Your task to perform on an android device: Google the capital of Venezuela Image 0: 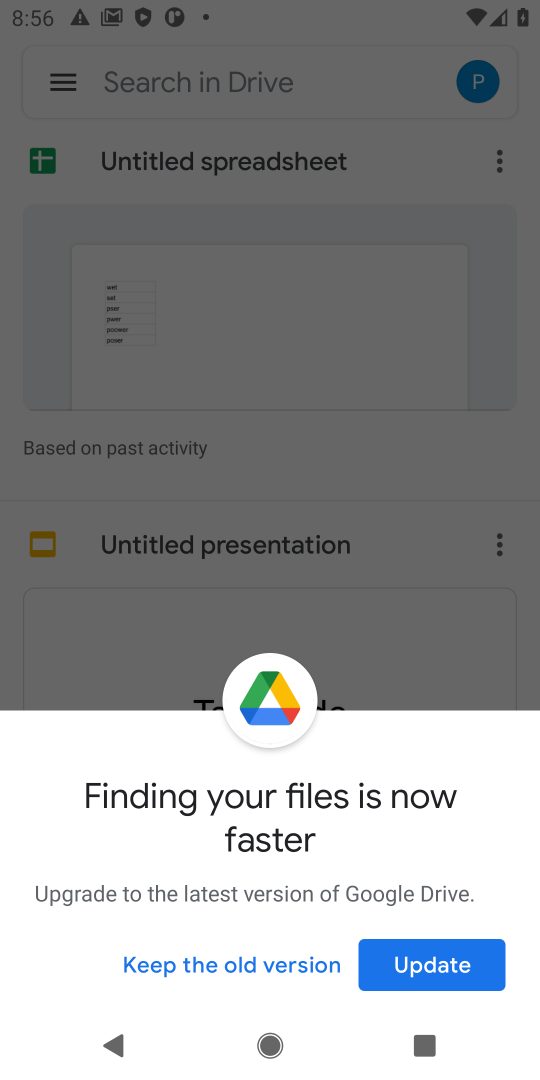
Step 0: press home button
Your task to perform on an android device: Google the capital of Venezuela Image 1: 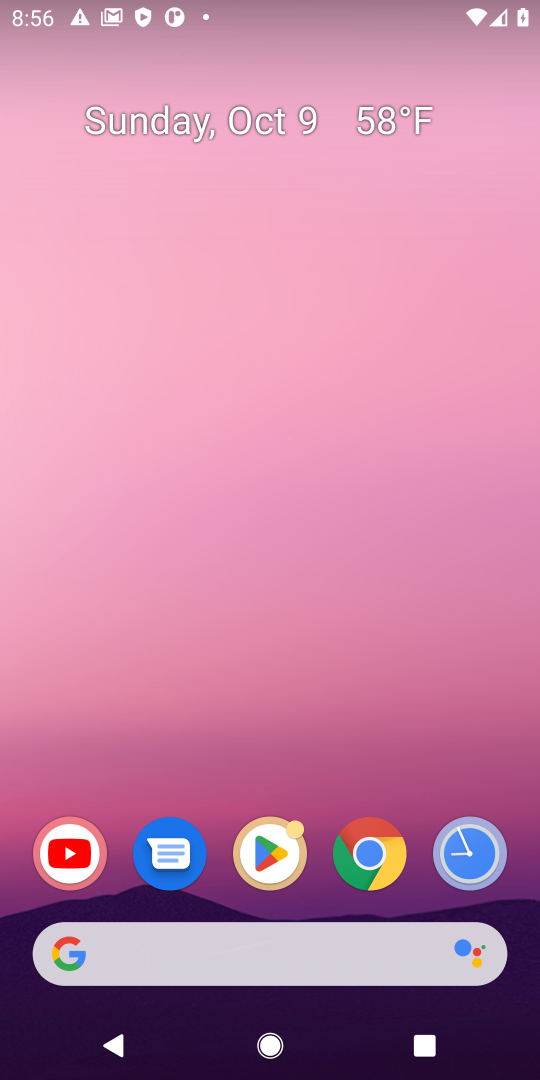
Step 1: click (373, 854)
Your task to perform on an android device: Google the capital of Venezuela Image 2: 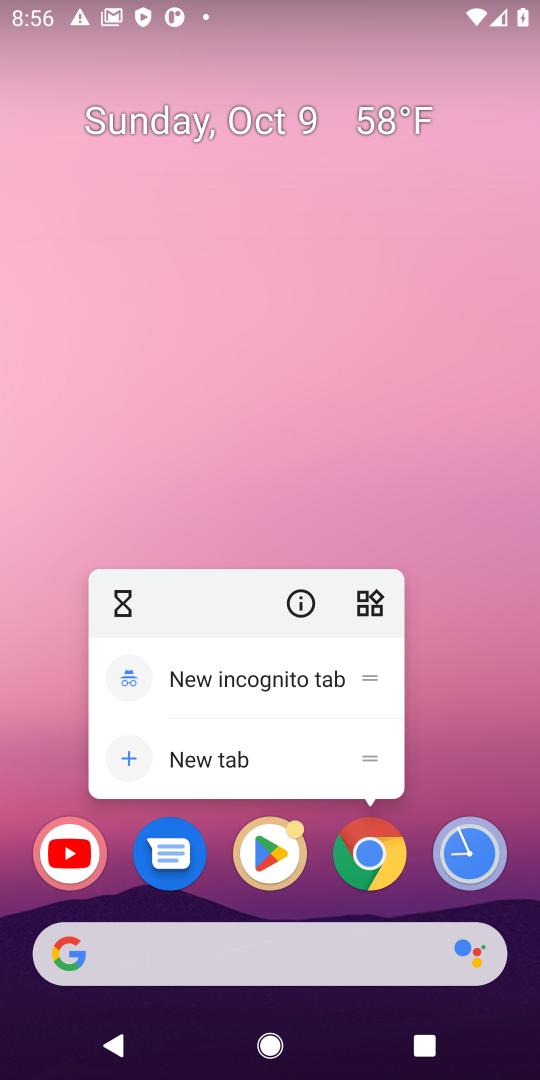
Step 2: click (380, 858)
Your task to perform on an android device: Google the capital of Venezuela Image 3: 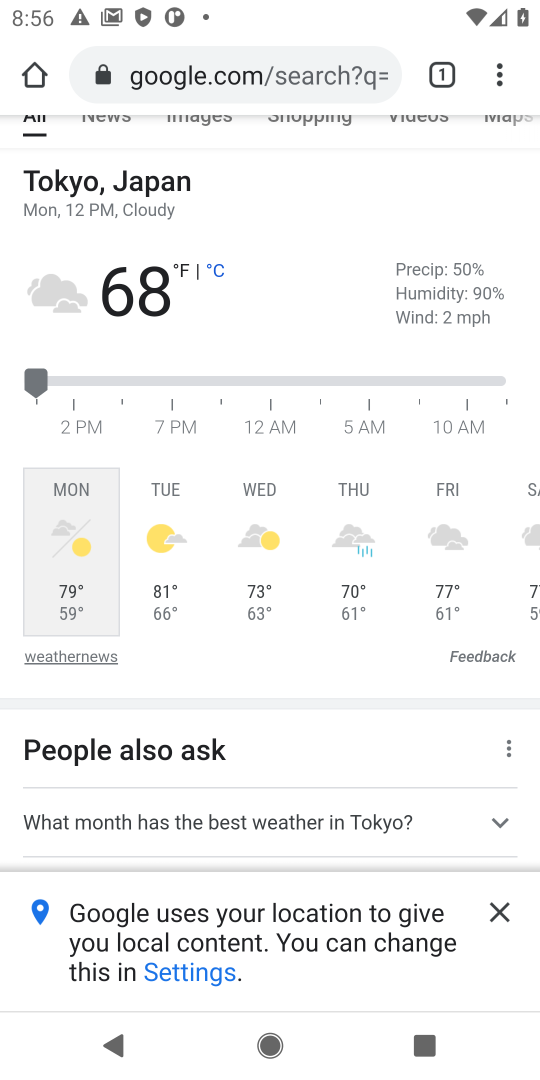
Step 3: click (309, 81)
Your task to perform on an android device: Google the capital of Venezuela Image 4: 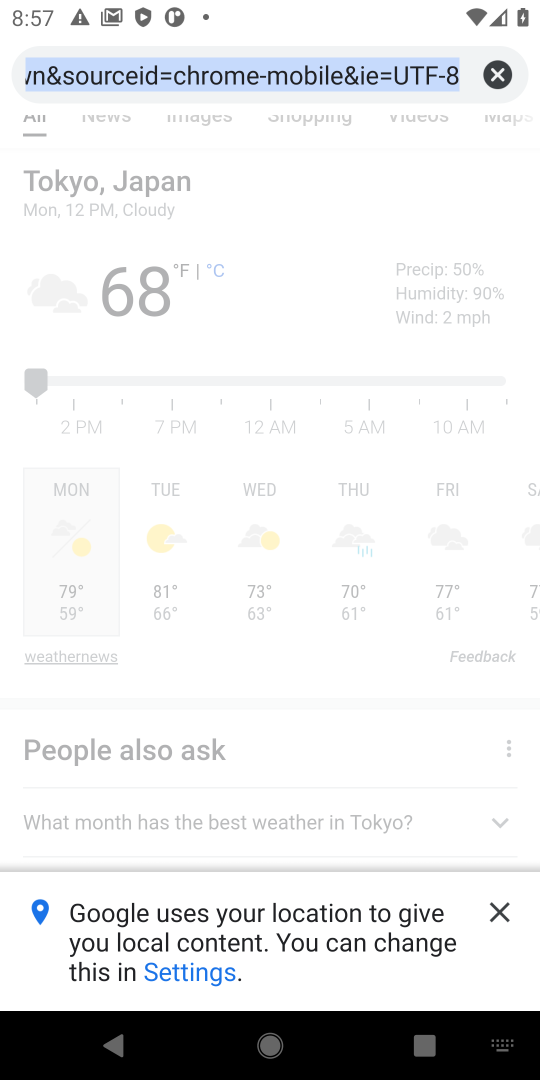
Step 4: type "capital of venezuela"
Your task to perform on an android device: Google the capital of Venezuela Image 5: 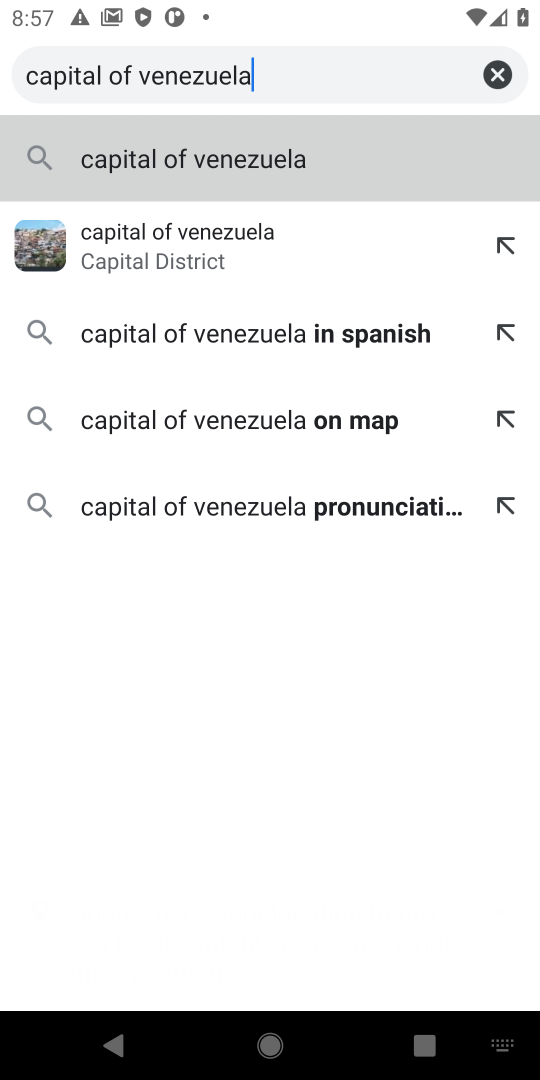
Step 5: click (301, 172)
Your task to perform on an android device: Google the capital of Venezuela Image 6: 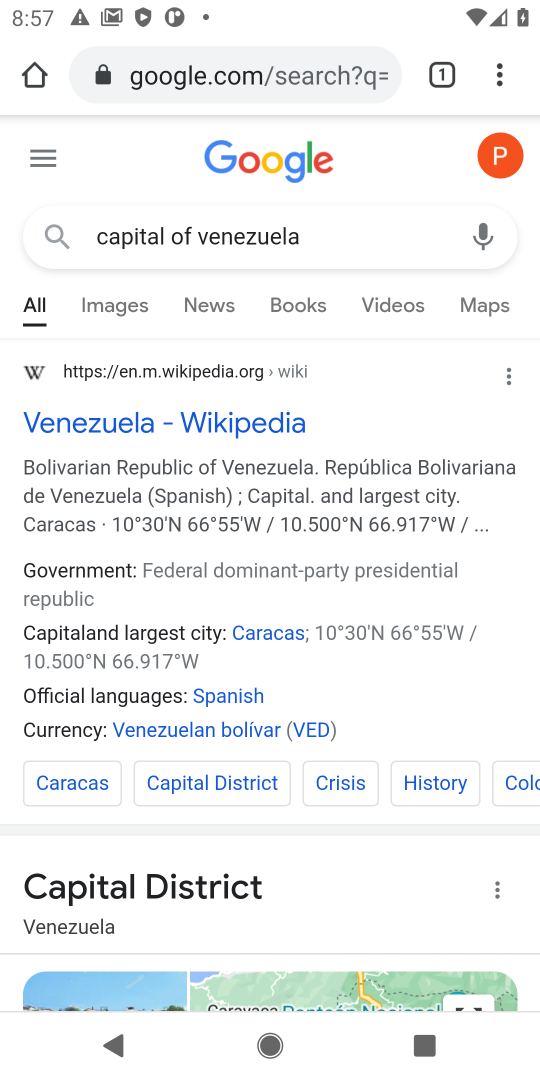
Step 6: task complete